Your task to perform on an android device: Search for the best rated vacuums on Target Image 0: 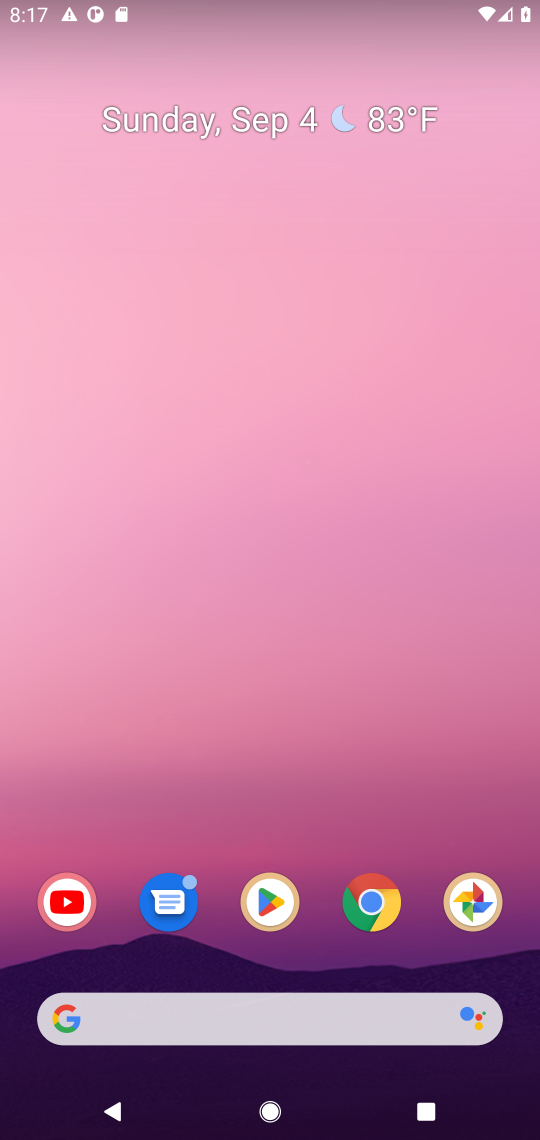
Step 0: click (271, 890)
Your task to perform on an android device: Search for the best rated vacuums on Target Image 1: 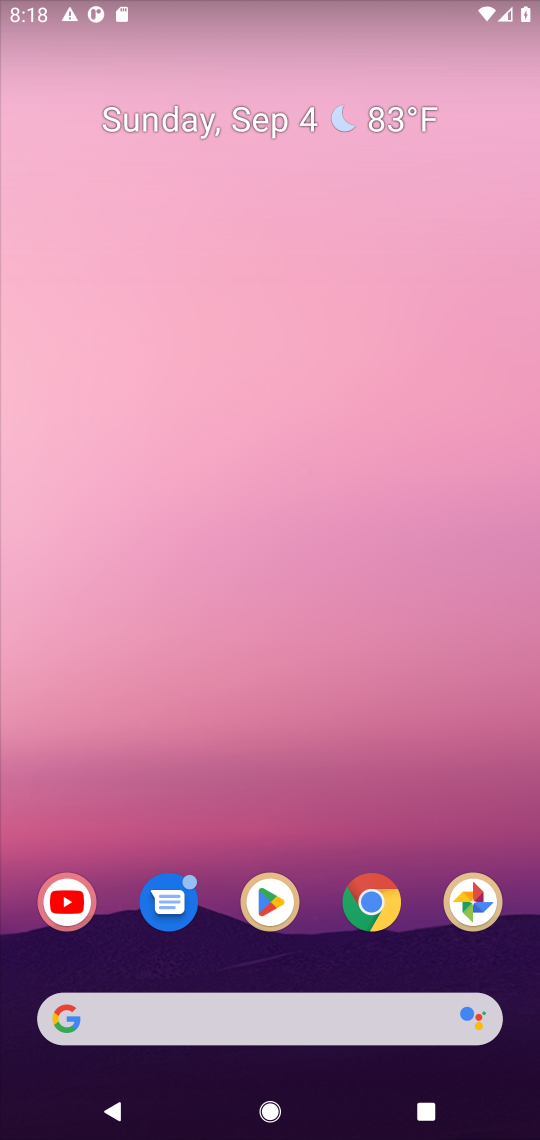
Step 1: click (271, 890)
Your task to perform on an android device: Search for the best rated vacuums on Target Image 2: 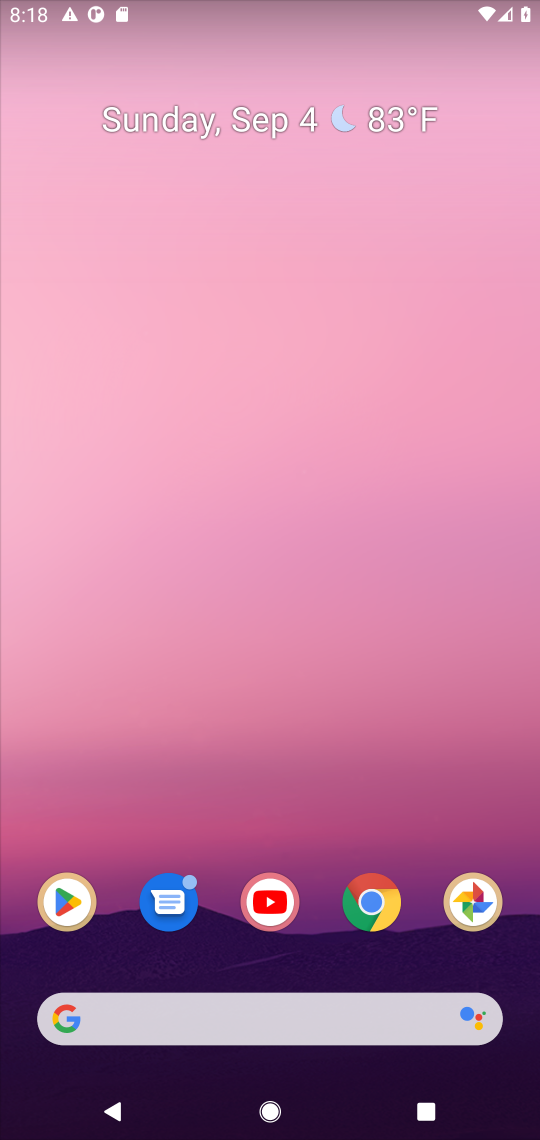
Step 2: click (271, 890)
Your task to perform on an android device: Search for the best rated vacuums on Target Image 3: 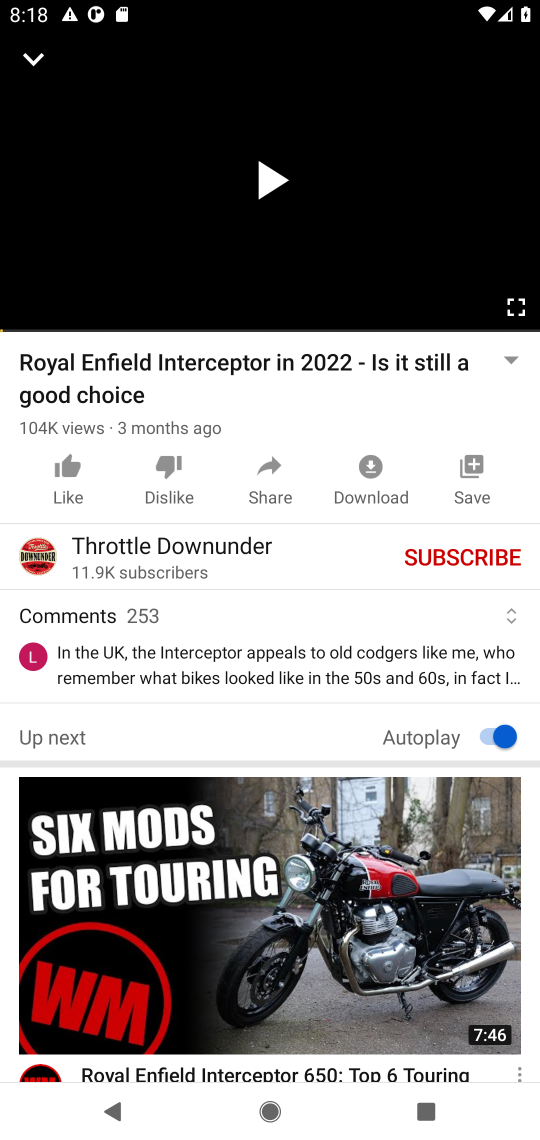
Step 3: task complete